Your task to perform on an android device: Go to CNN.com Image 0: 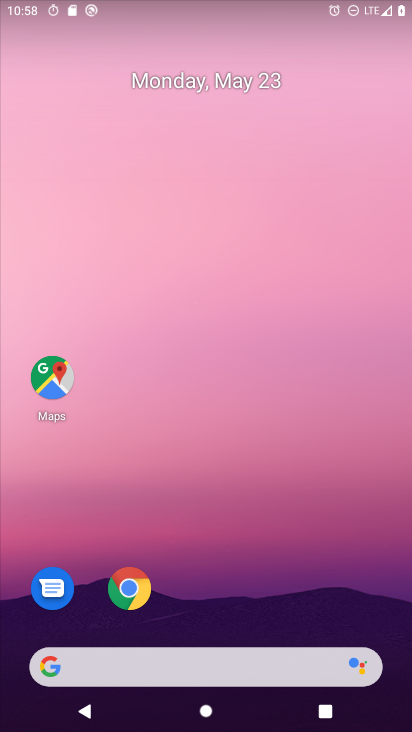
Step 0: click (126, 579)
Your task to perform on an android device: Go to CNN.com Image 1: 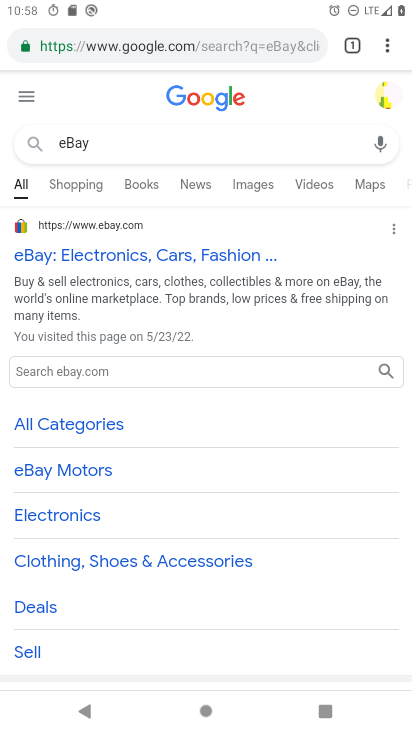
Step 1: click (316, 40)
Your task to perform on an android device: Go to CNN.com Image 2: 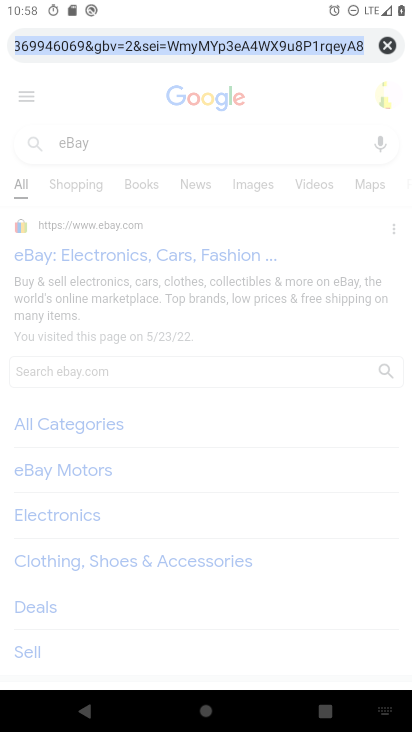
Step 2: click (390, 41)
Your task to perform on an android device: Go to CNN.com Image 3: 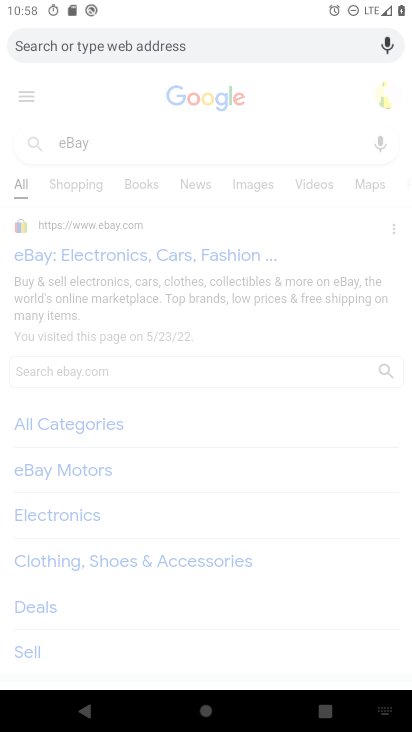
Step 3: type "CNN.com"
Your task to perform on an android device: Go to CNN.com Image 4: 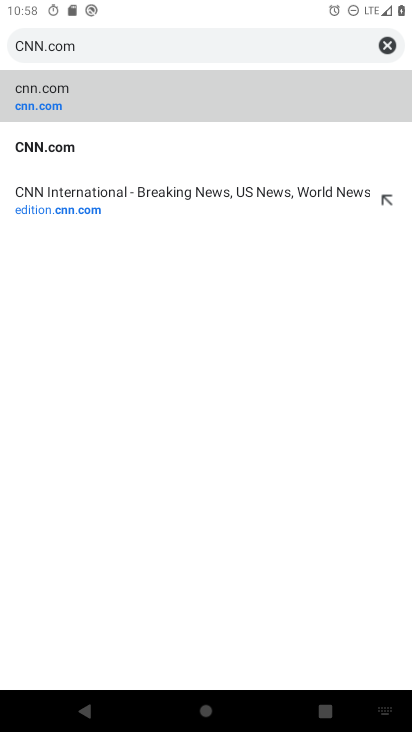
Step 4: click (44, 141)
Your task to perform on an android device: Go to CNN.com Image 5: 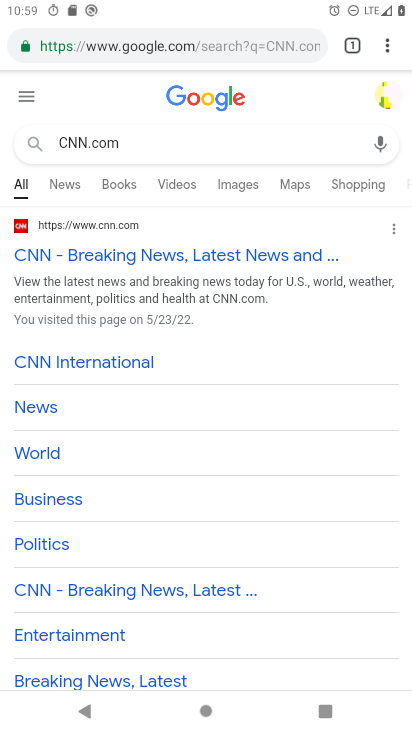
Step 5: task complete